Your task to perform on an android device: turn off location history Image 0: 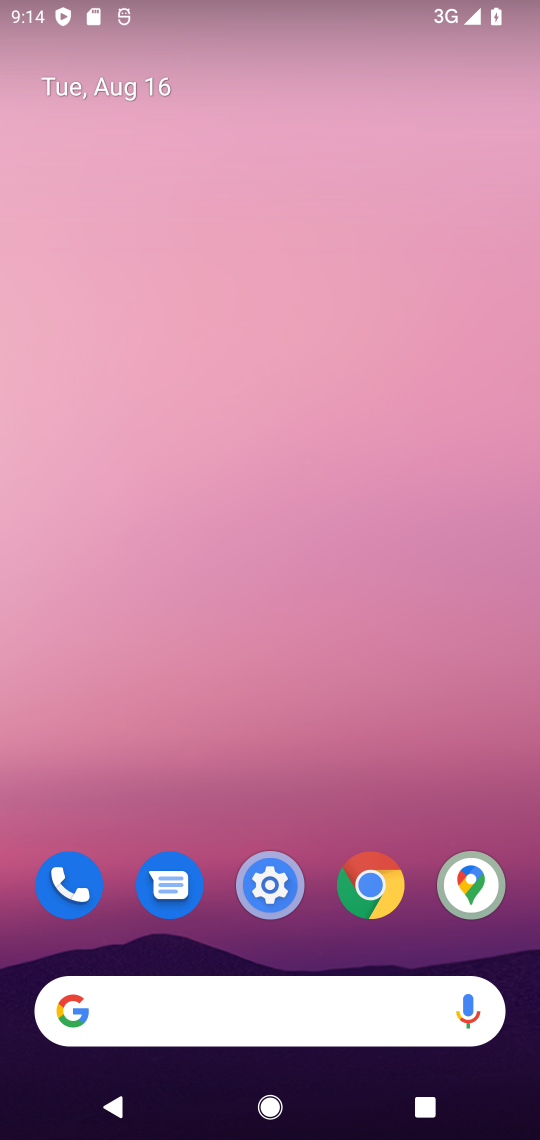
Step 0: drag from (249, 929) to (275, 32)
Your task to perform on an android device: turn off location history Image 1: 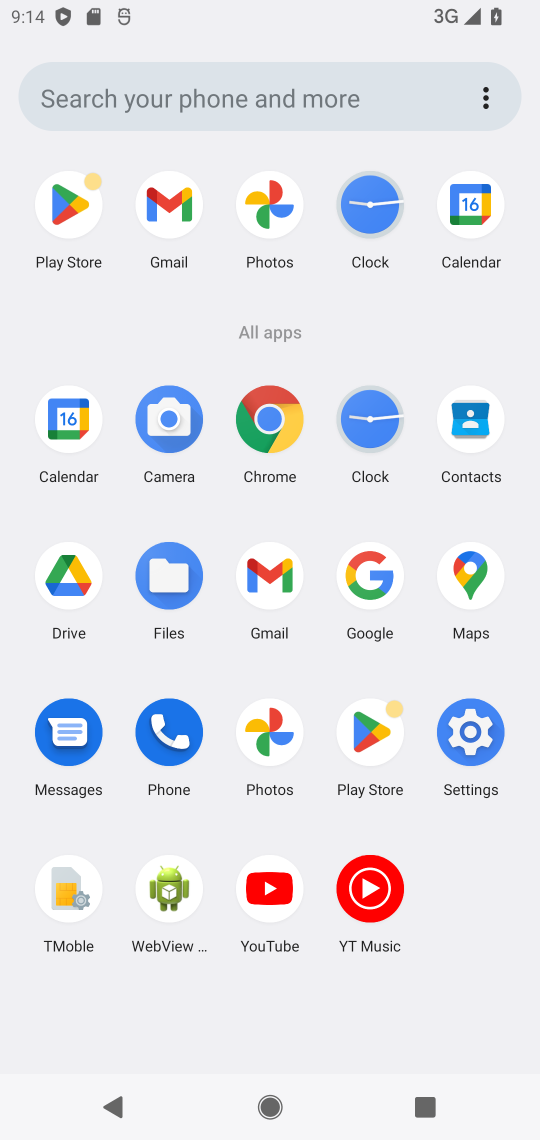
Step 1: click (462, 734)
Your task to perform on an android device: turn off location history Image 2: 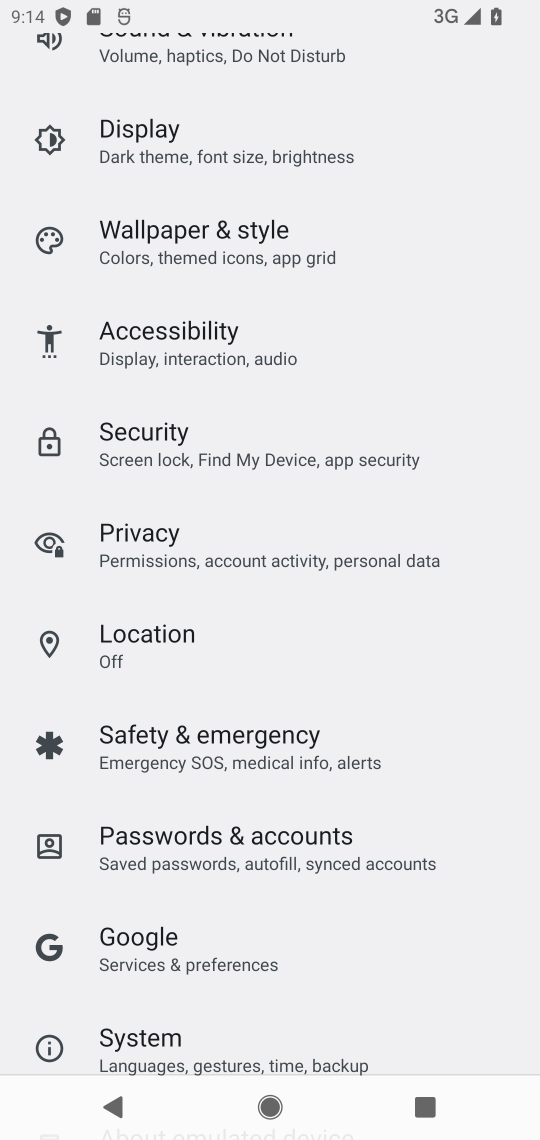
Step 2: click (169, 643)
Your task to perform on an android device: turn off location history Image 3: 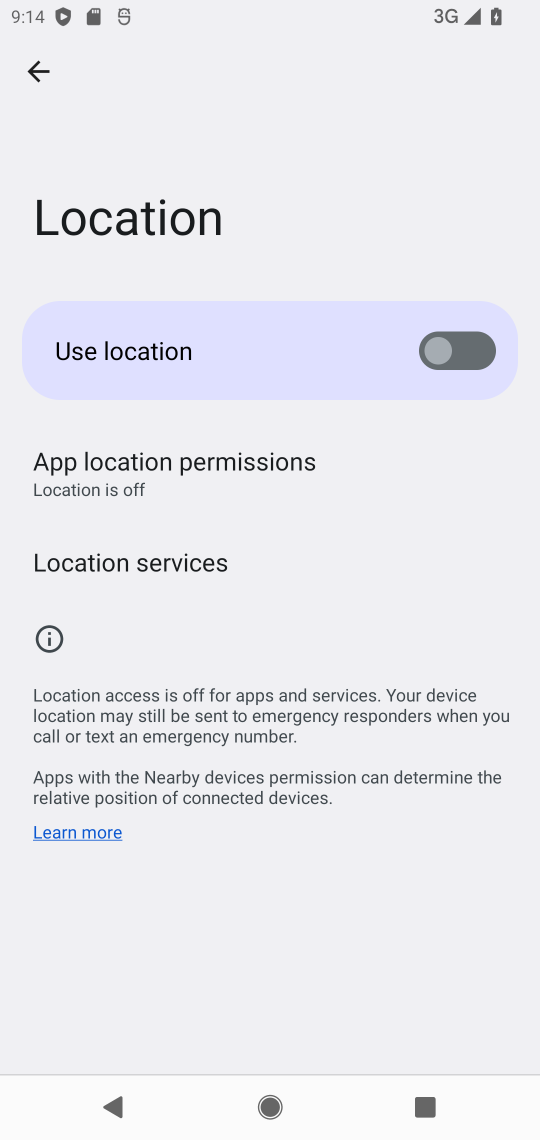
Step 3: click (172, 561)
Your task to perform on an android device: turn off location history Image 4: 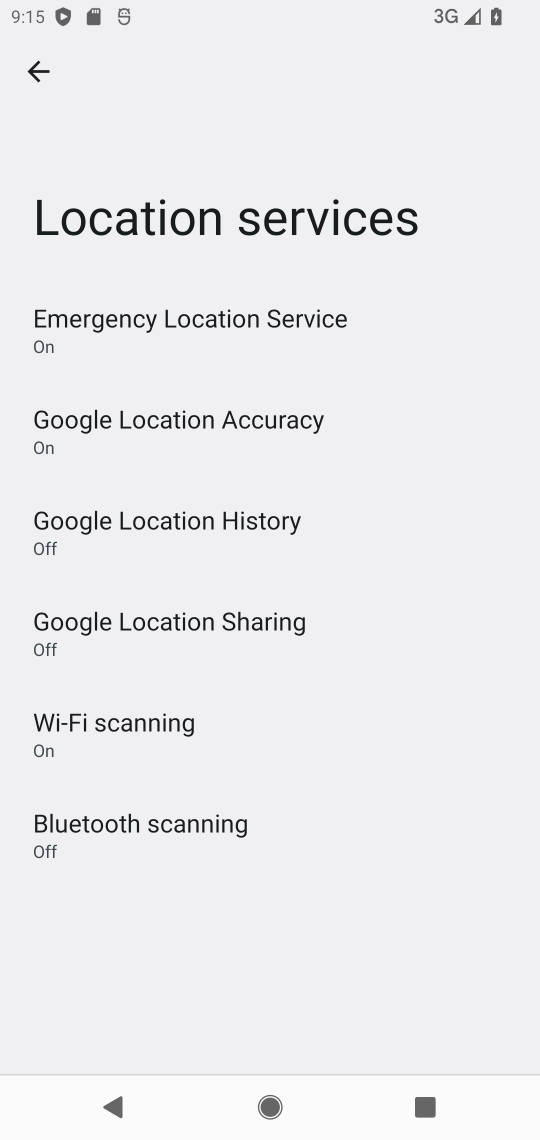
Step 4: click (228, 518)
Your task to perform on an android device: turn off location history Image 5: 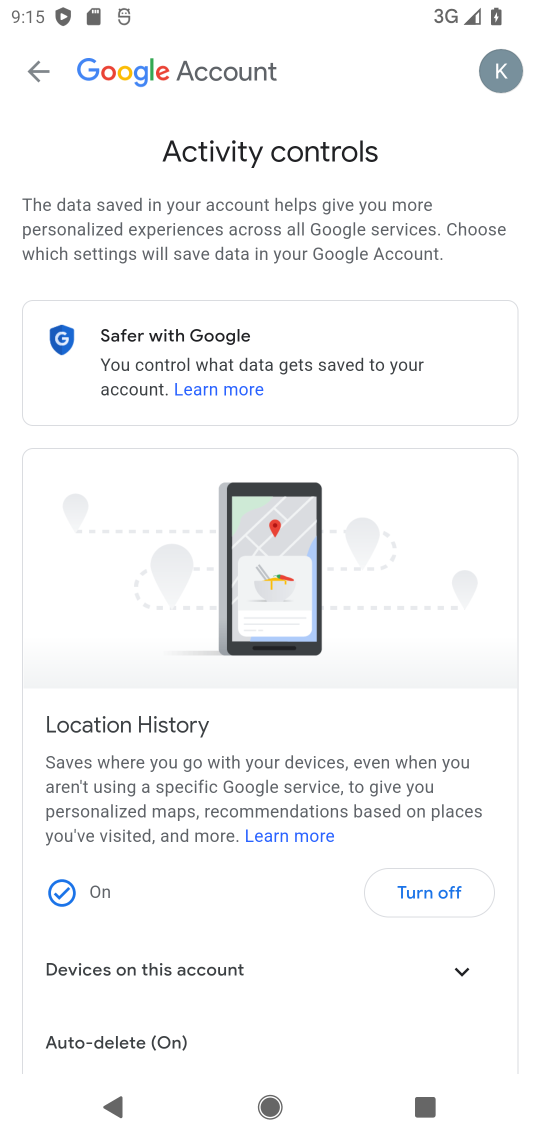
Step 5: click (412, 883)
Your task to perform on an android device: turn off location history Image 6: 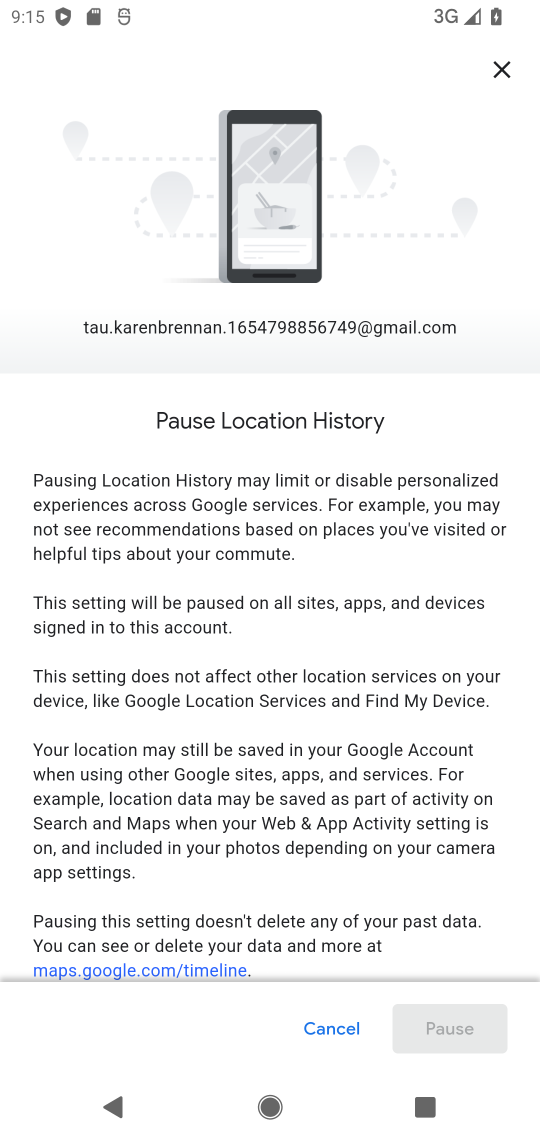
Step 6: drag from (387, 791) to (376, 392)
Your task to perform on an android device: turn off location history Image 7: 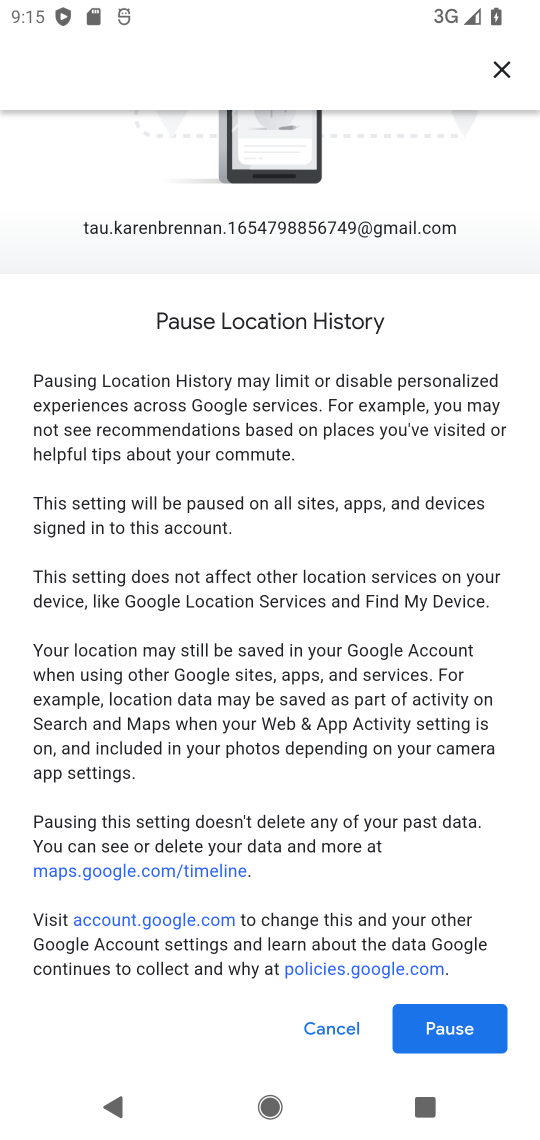
Step 7: click (446, 1034)
Your task to perform on an android device: turn off location history Image 8: 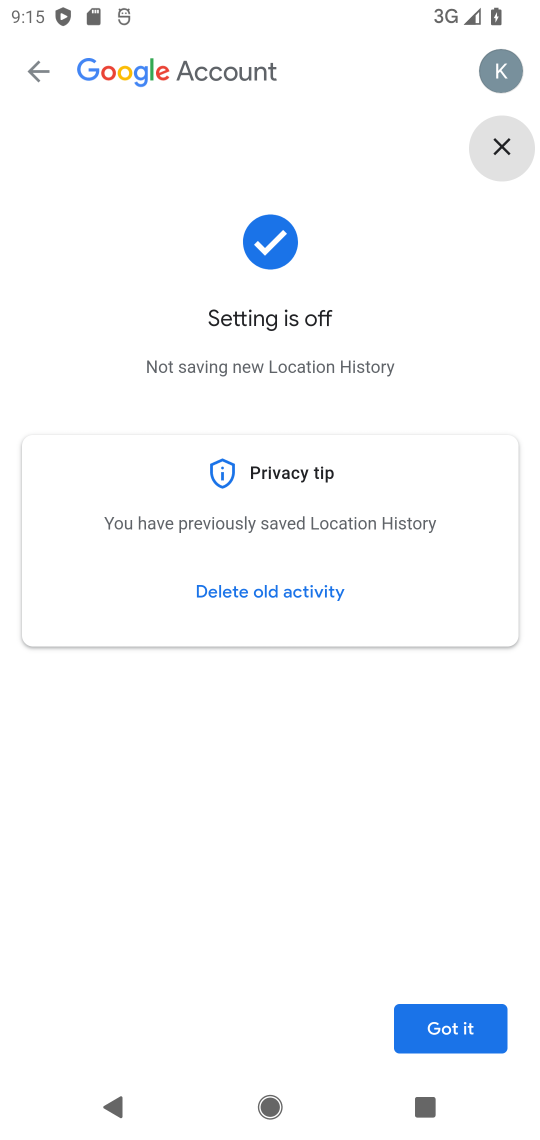
Step 8: click (446, 1034)
Your task to perform on an android device: turn off location history Image 9: 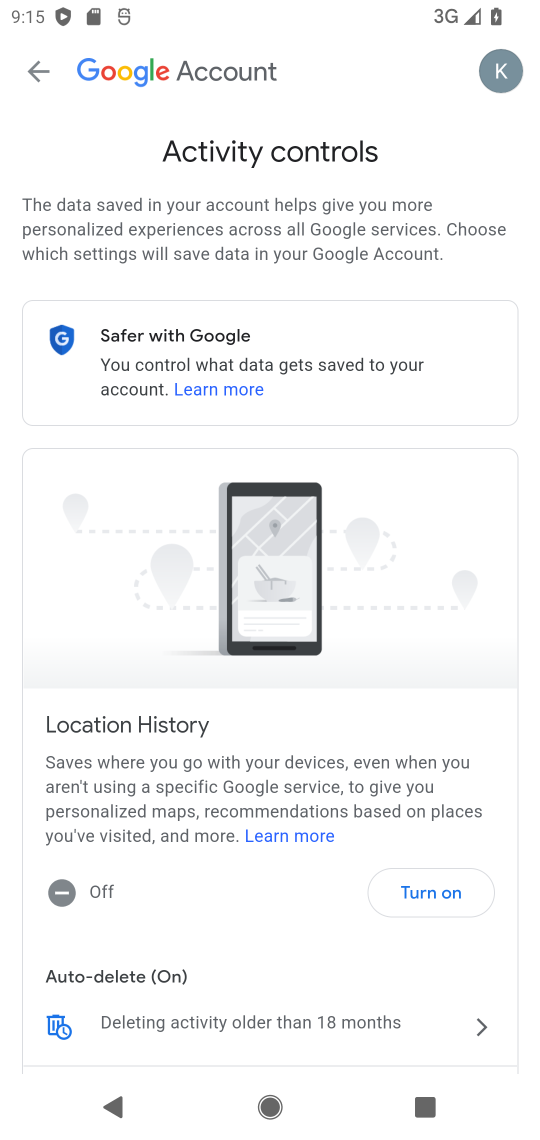
Step 9: task complete